Your task to perform on an android device: open app "LiveIn - Share Your Moment" (install if not already installed) Image 0: 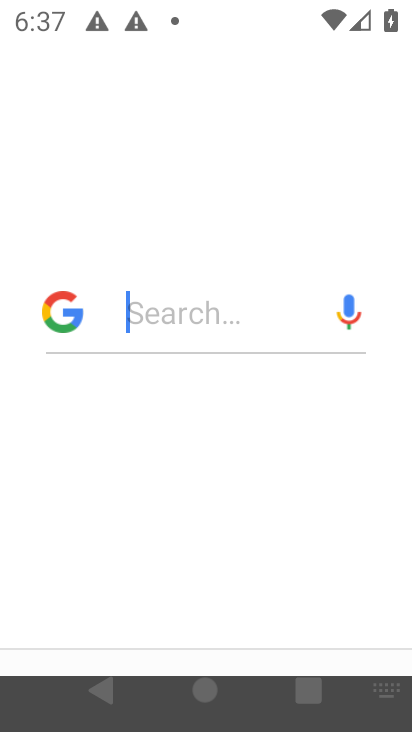
Step 0: click (374, 522)
Your task to perform on an android device: open app "LiveIn - Share Your Moment" (install if not already installed) Image 1: 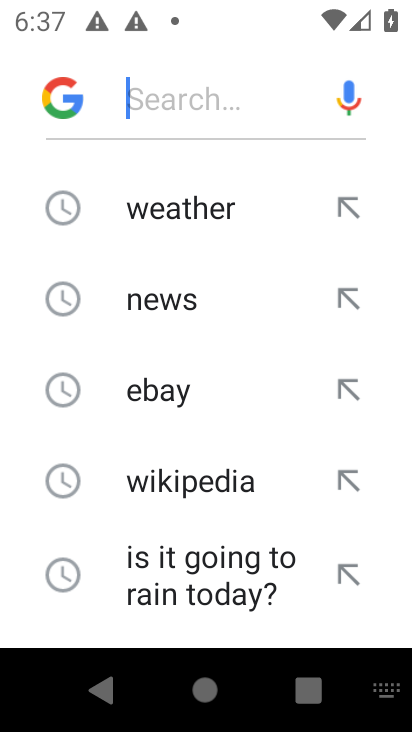
Step 1: press home button
Your task to perform on an android device: open app "LiveIn - Share Your Moment" (install if not already installed) Image 2: 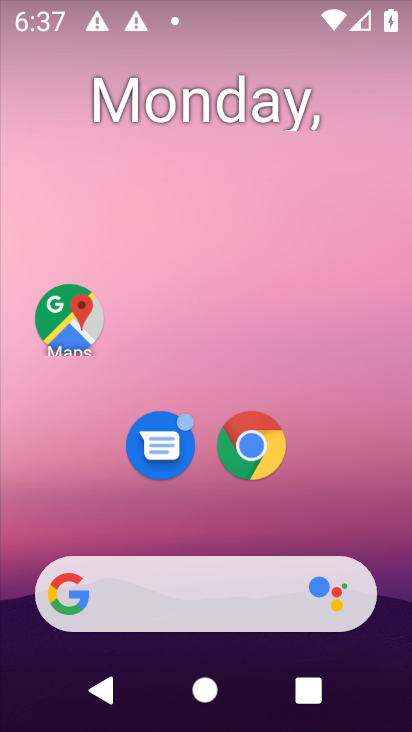
Step 2: drag from (376, 549) to (207, 145)
Your task to perform on an android device: open app "LiveIn - Share Your Moment" (install if not already installed) Image 3: 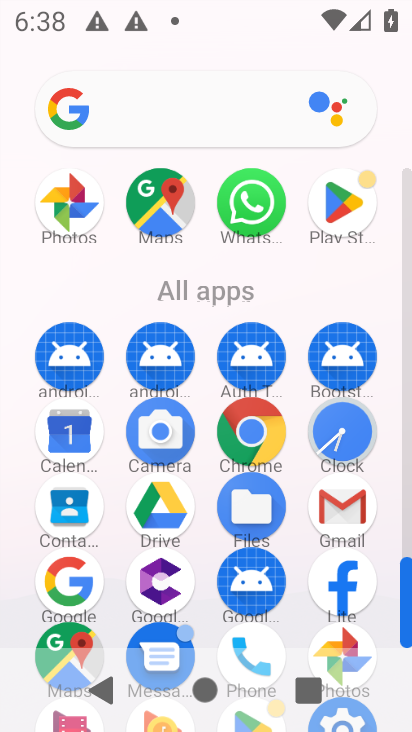
Step 3: click (339, 224)
Your task to perform on an android device: open app "LiveIn - Share Your Moment" (install if not already installed) Image 4: 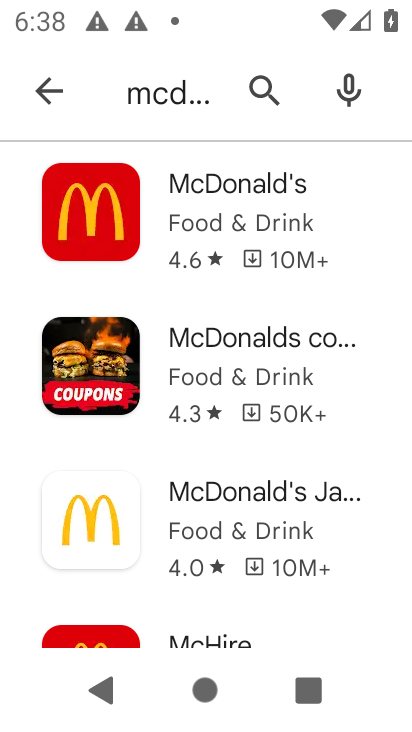
Step 4: press back button
Your task to perform on an android device: open app "LiveIn - Share Your Moment" (install if not already installed) Image 5: 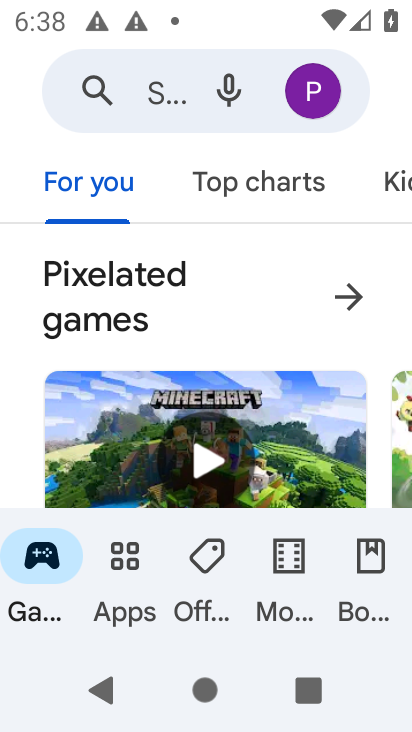
Step 5: click (151, 83)
Your task to perform on an android device: open app "LiveIn - Share Your Moment" (install if not already installed) Image 6: 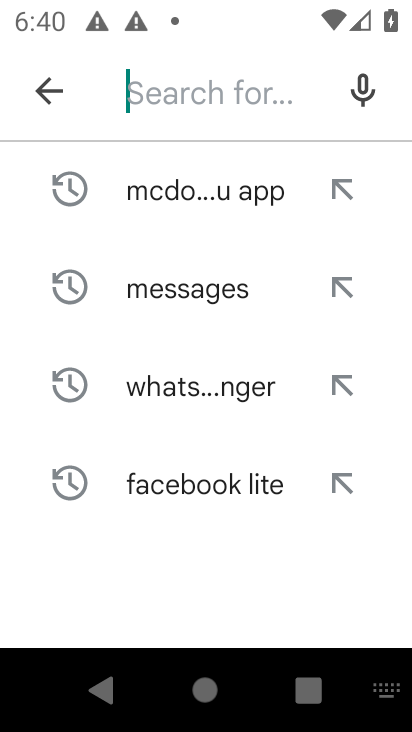
Step 6: type "LiveIn - Share Your Moment"
Your task to perform on an android device: open app "LiveIn - Share Your Moment" (install if not already installed) Image 7: 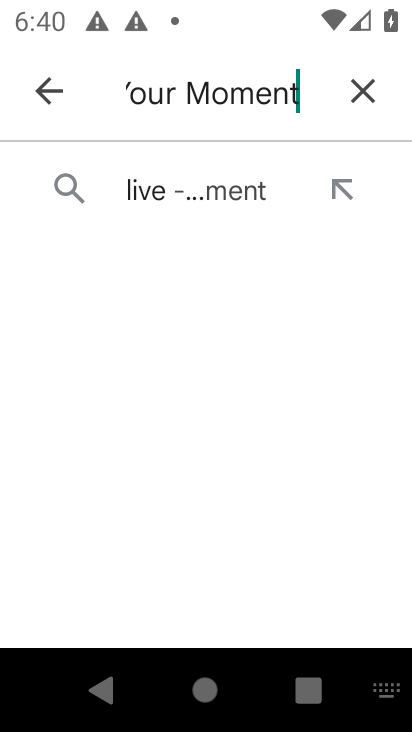
Step 7: click (230, 187)
Your task to perform on an android device: open app "LiveIn - Share Your Moment" (install if not already installed) Image 8: 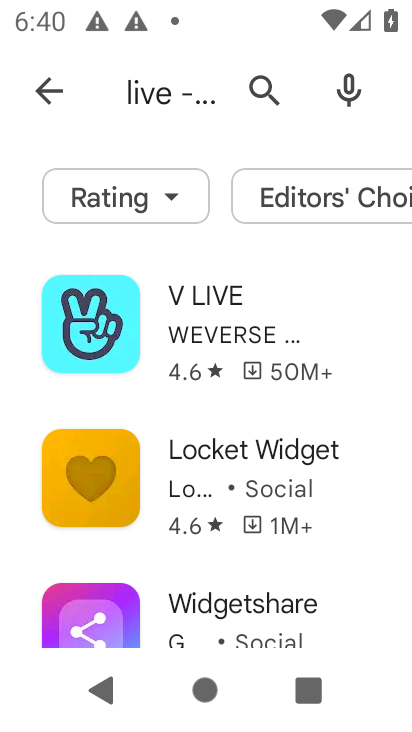
Step 8: click (137, 319)
Your task to perform on an android device: open app "LiveIn - Share Your Moment" (install if not already installed) Image 9: 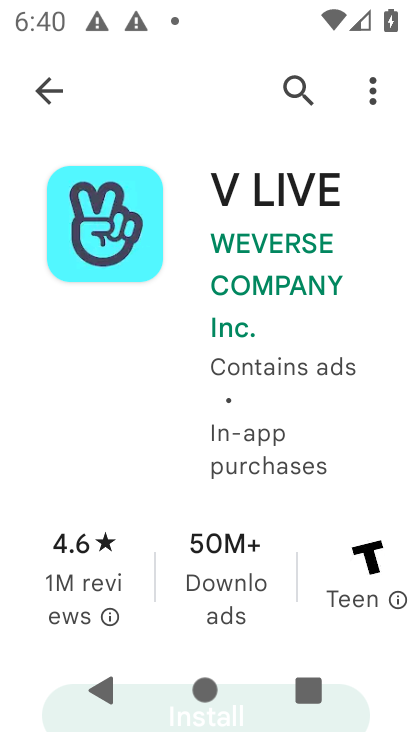
Step 9: task complete